Your task to perform on an android device: Open settings Image 0: 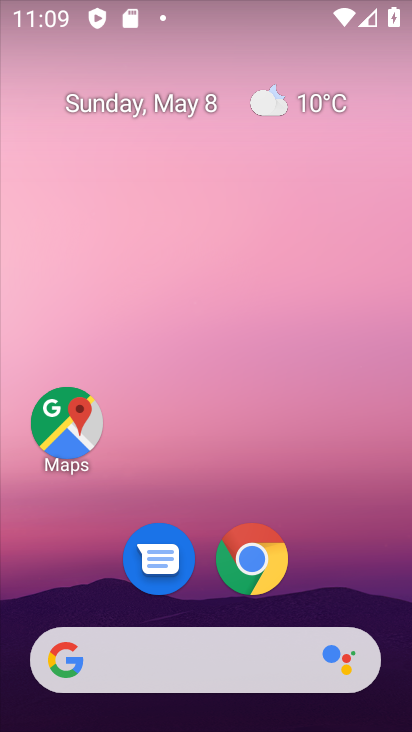
Step 0: drag from (281, 601) to (313, 27)
Your task to perform on an android device: Open settings Image 1: 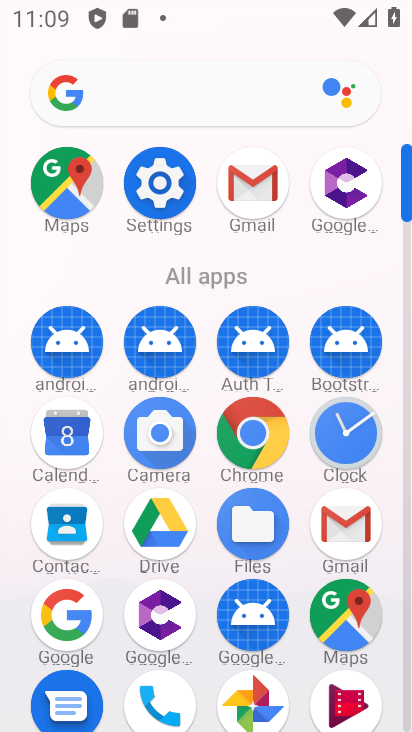
Step 1: click (155, 198)
Your task to perform on an android device: Open settings Image 2: 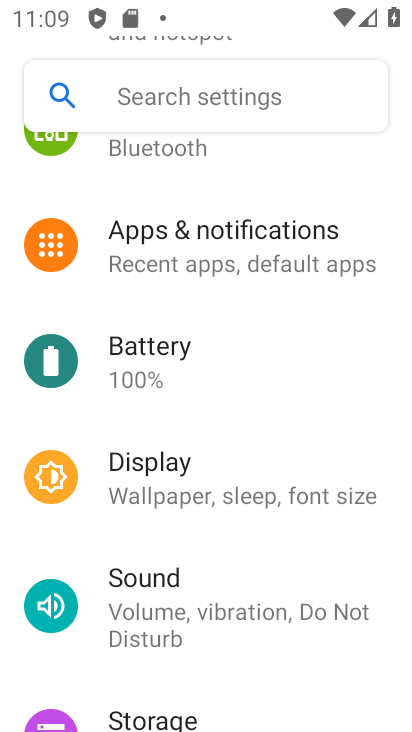
Step 2: task complete